Your task to perform on an android device: turn pop-ups off in chrome Image 0: 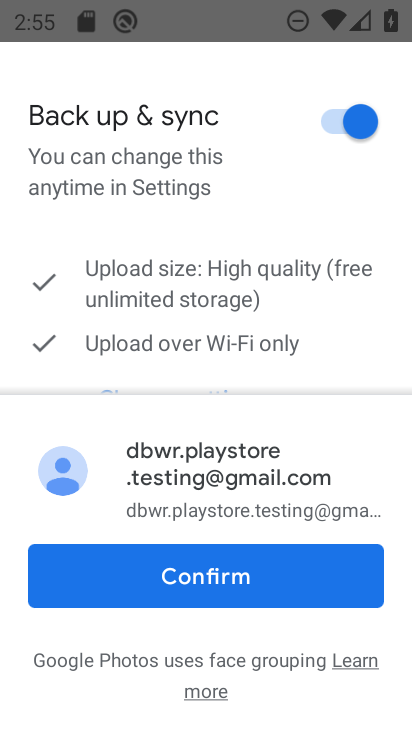
Step 0: press home button
Your task to perform on an android device: turn pop-ups off in chrome Image 1: 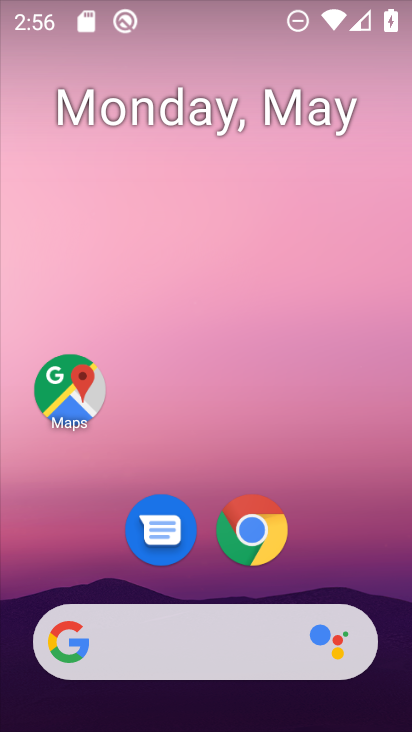
Step 1: click (251, 540)
Your task to perform on an android device: turn pop-ups off in chrome Image 2: 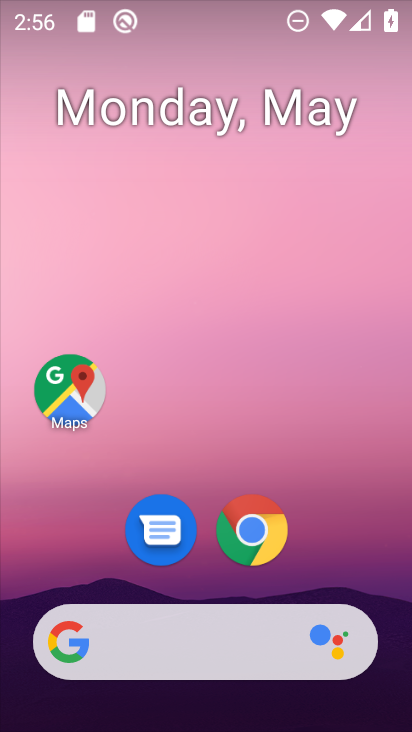
Step 2: click (251, 540)
Your task to perform on an android device: turn pop-ups off in chrome Image 3: 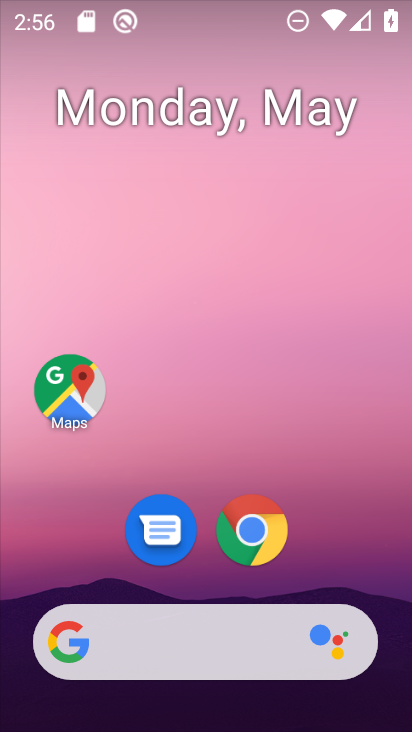
Step 3: click (237, 543)
Your task to perform on an android device: turn pop-ups off in chrome Image 4: 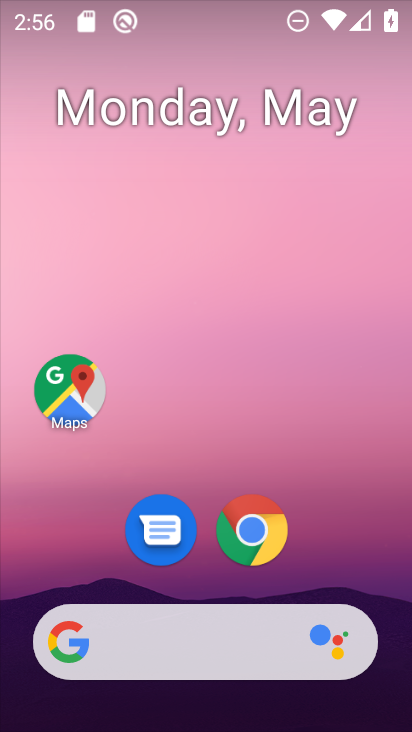
Step 4: click (256, 537)
Your task to perform on an android device: turn pop-ups off in chrome Image 5: 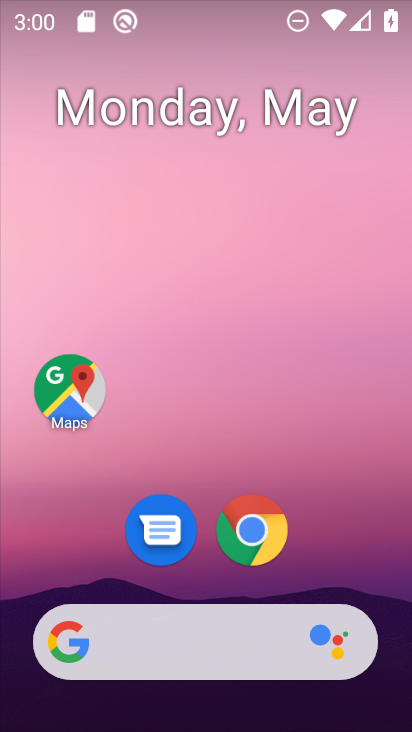
Step 5: click (247, 546)
Your task to perform on an android device: turn pop-ups off in chrome Image 6: 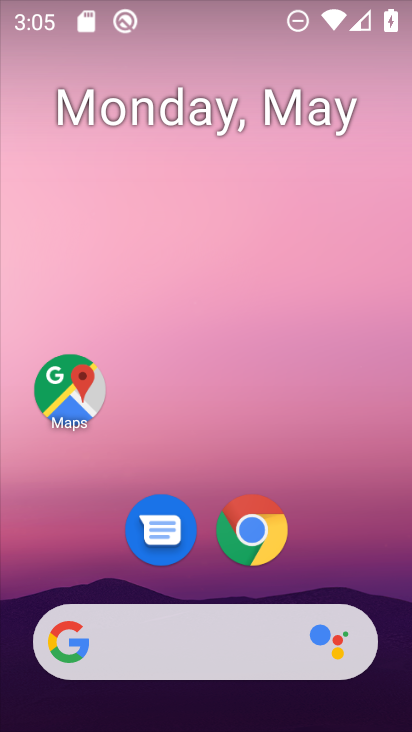
Step 6: click (269, 538)
Your task to perform on an android device: turn pop-ups off in chrome Image 7: 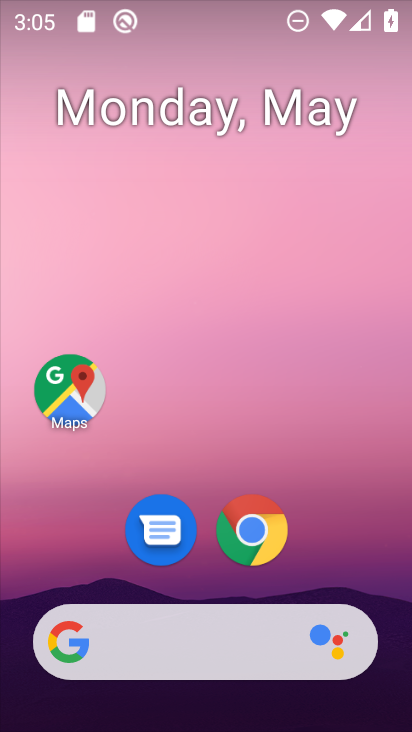
Step 7: click (260, 525)
Your task to perform on an android device: turn pop-ups off in chrome Image 8: 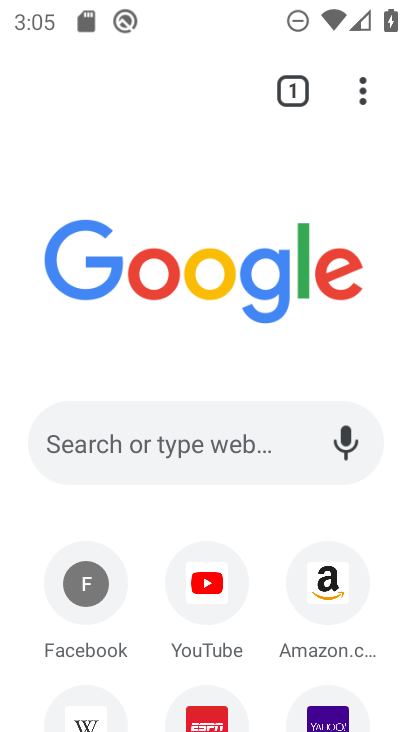
Step 8: click (260, 525)
Your task to perform on an android device: turn pop-ups off in chrome Image 9: 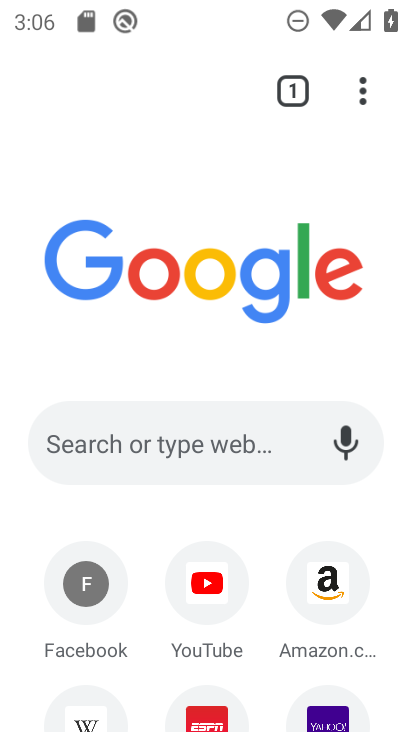
Step 9: click (379, 93)
Your task to perform on an android device: turn pop-ups off in chrome Image 10: 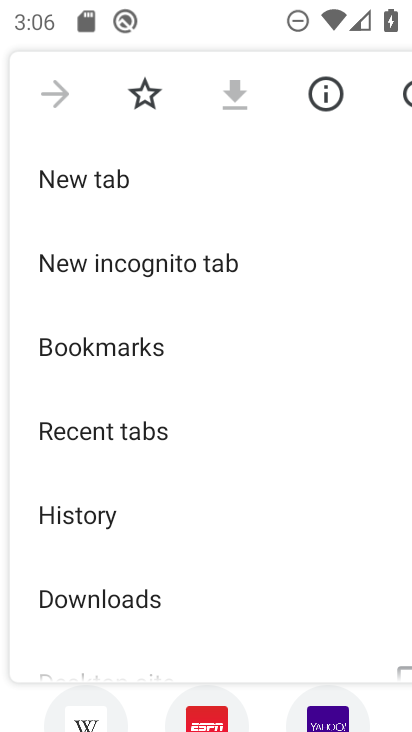
Step 10: click (365, 92)
Your task to perform on an android device: turn pop-ups off in chrome Image 11: 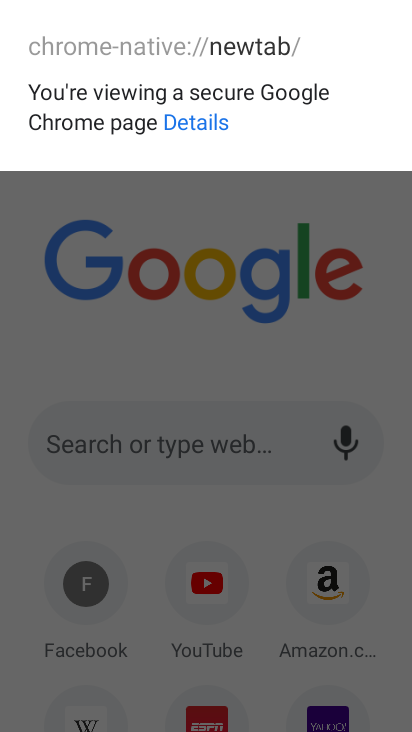
Step 11: click (142, 227)
Your task to perform on an android device: turn pop-ups off in chrome Image 12: 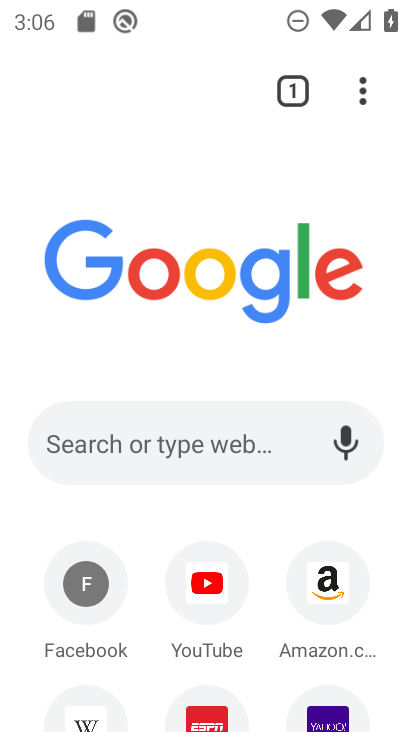
Step 12: click (367, 109)
Your task to perform on an android device: turn pop-ups off in chrome Image 13: 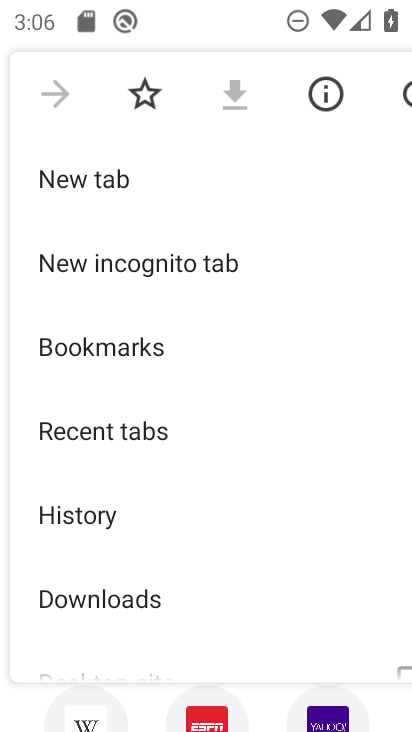
Step 13: drag from (99, 622) to (83, 264)
Your task to perform on an android device: turn pop-ups off in chrome Image 14: 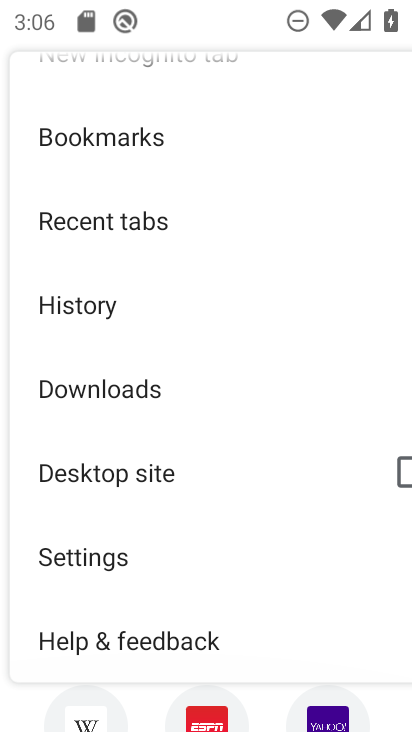
Step 14: drag from (156, 348) to (165, 119)
Your task to perform on an android device: turn pop-ups off in chrome Image 15: 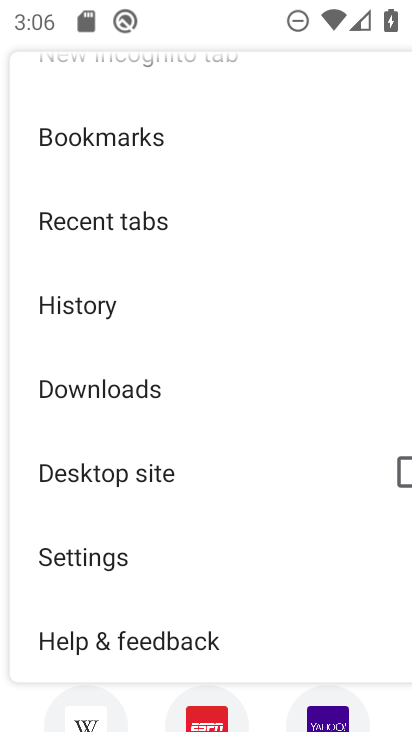
Step 15: click (173, 557)
Your task to perform on an android device: turn pop-ups off in chrome Image 16: 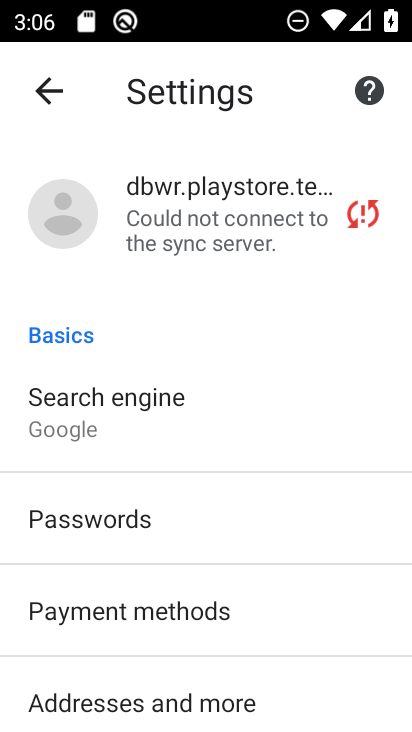
Step 16: drag from (219, 544) to (208, 137)
Your task to perform on an android device: turn pop-ups off in chrome Image 17: 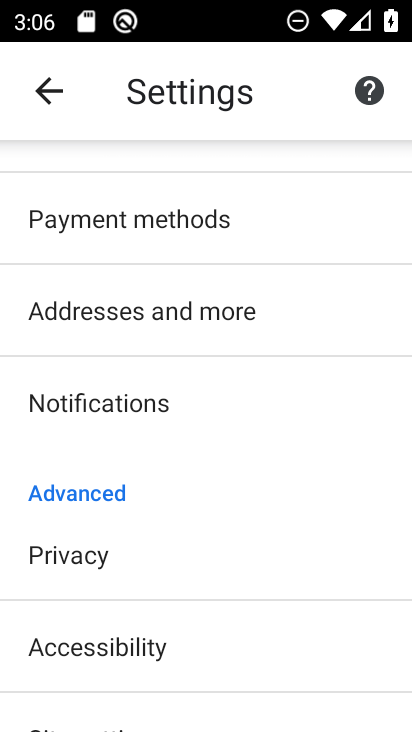
Step 17: drag from (63, 616) to (158, 158)
Your task to perform on an android device: turn pop-ups off in chrome Image 18: 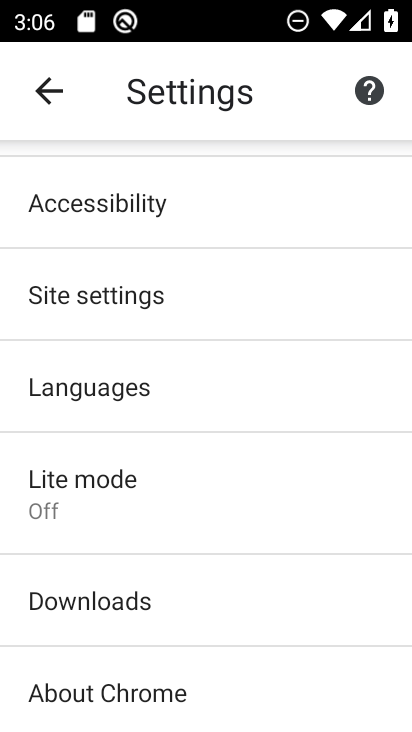
Step 18: drag from (34, 644) to (160, 177)
Your task to perform on an android device: turn pop-ups off in chrome Image 19: 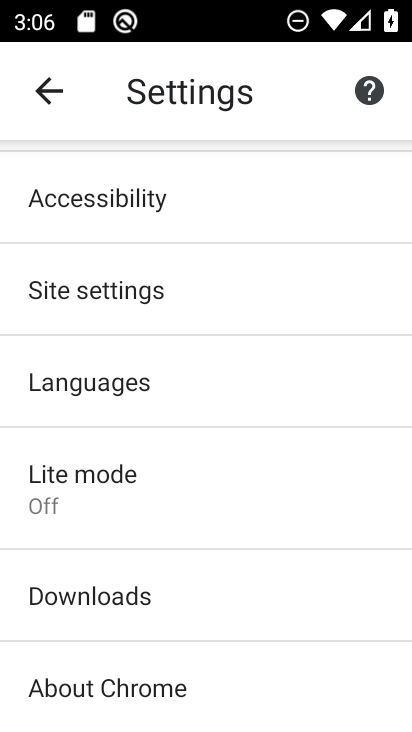
Step 19: click (161, 277)
Your task to perform on an android device: turn pop-ups off in chrome Image 20: 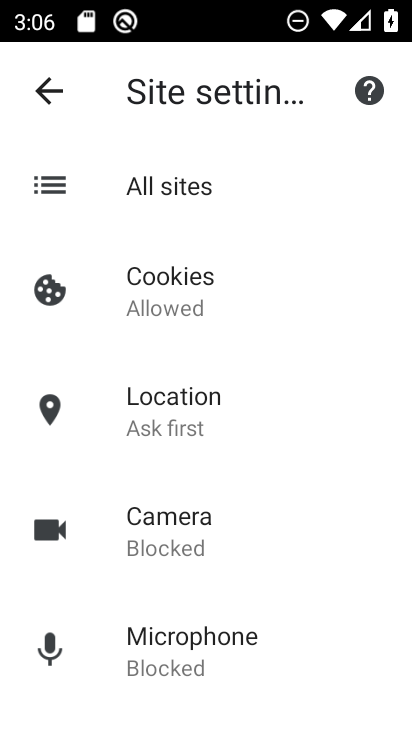
Step 20: drag from (169, 545) to (203, 119)
Your task to perform on an android device: turn pop-ups off in chrome Image 21: 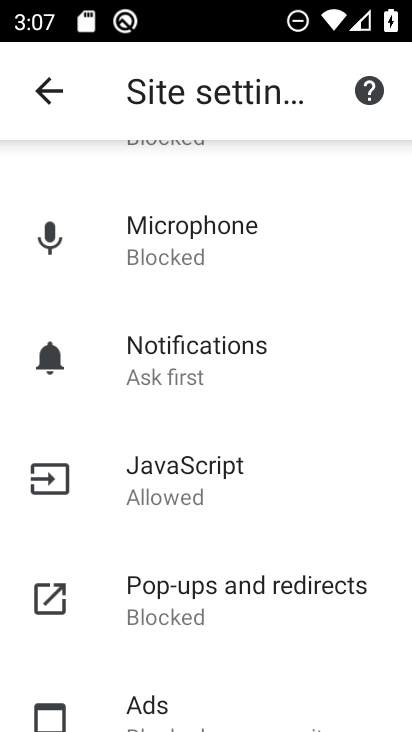
Step 21: click (193, 695)
Your task to perform on an android device: turn pop-ups off in chrome Image 22: 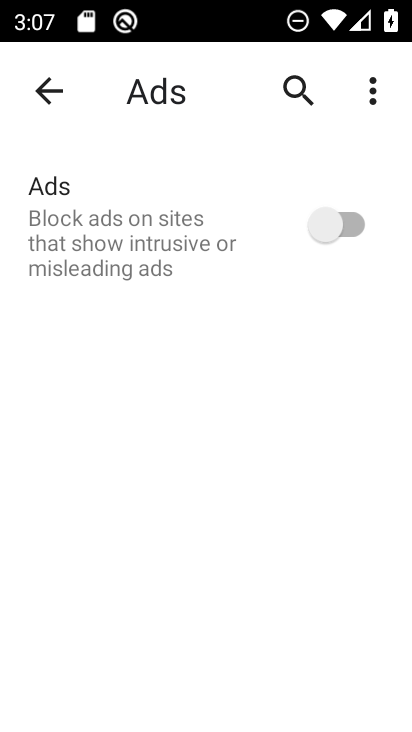
Step 22: click (41, 99)
Your task to perform on an android device: turn pop-ups off in chrome Image 23: 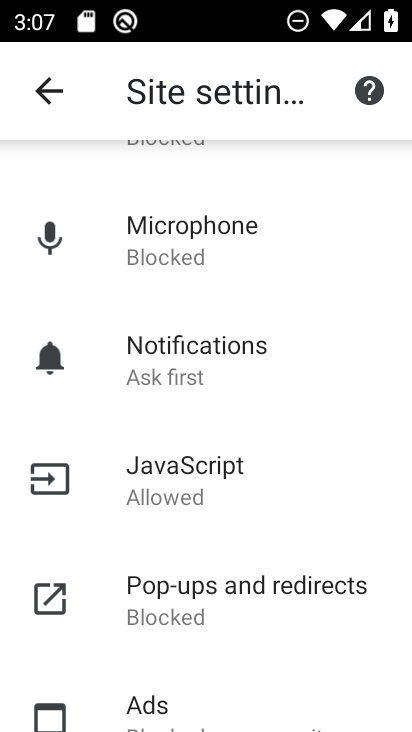
Step 23: click (178, 625)
Your task to perform on an android device: turn pop-ups off in chrome Image 24: 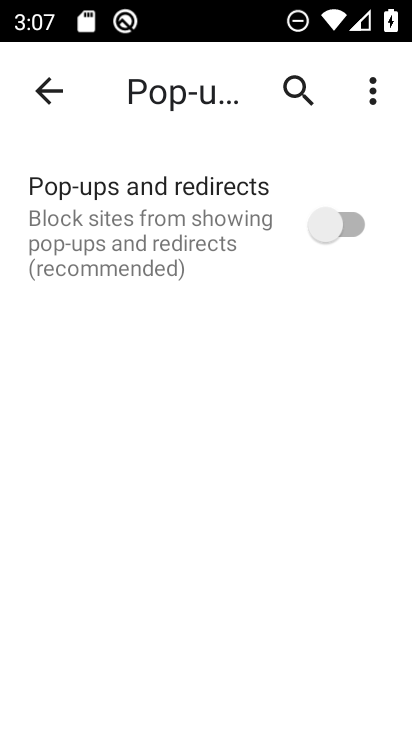
Step 24: task complete